Your task to perform on an android device: Open network settings Image 0: 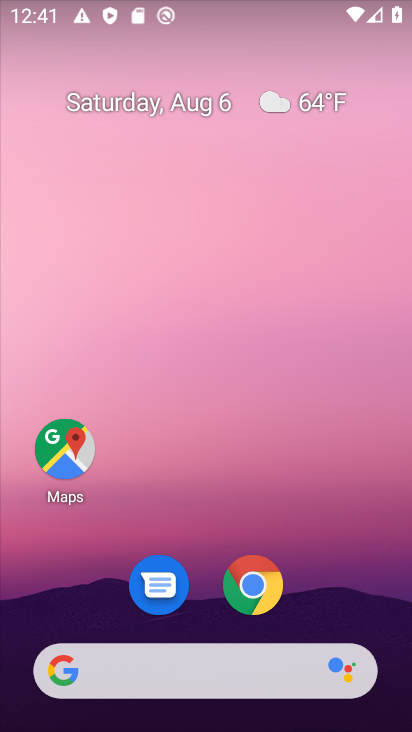
Step 0: press home button
Your task to perform on an android device: Open network settings Image 1: 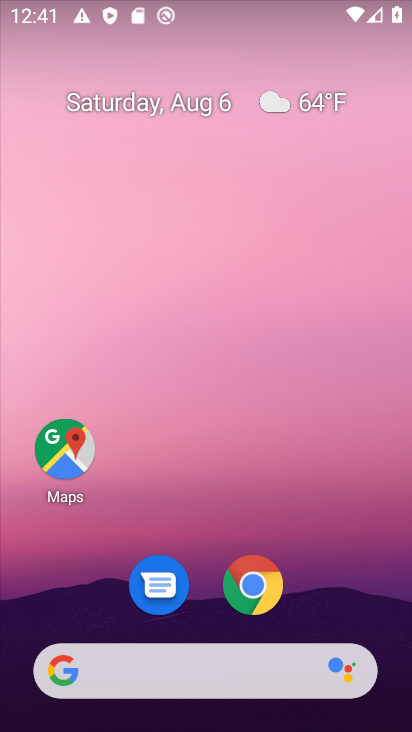
Step 1: drag from (243, 505) to (335, 12)
Your task to perform on an android device: Open network settings Image 2: 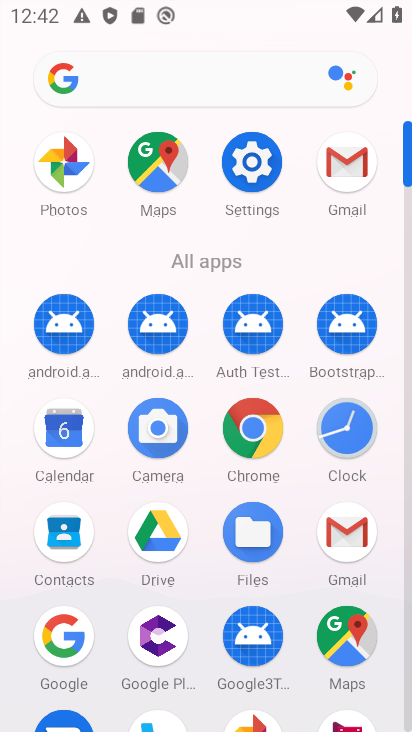
Step 2: click (248, 155)
Your task to perform on an android device: Open network settings Image 3: 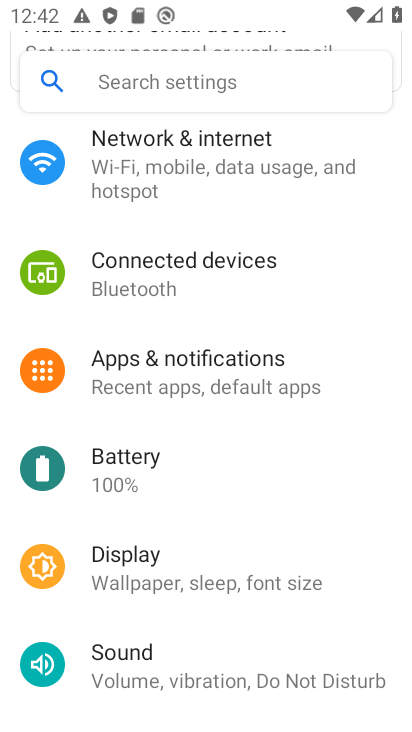
Step 3: click (253, 177)
Your task to perform on an android device: Open network settings Image 4: 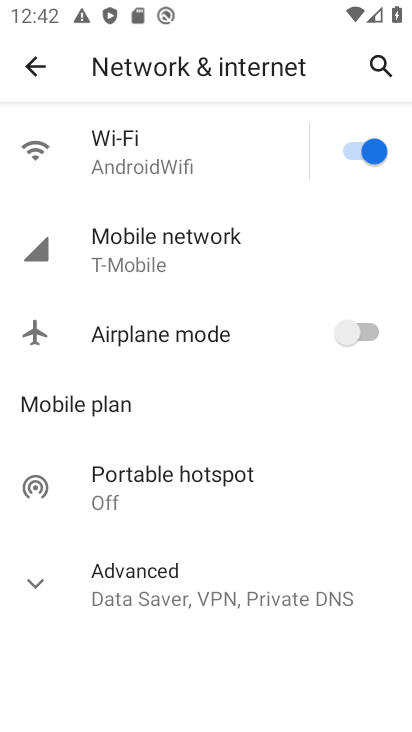
Step 4: task complete